Your task to perform on an android device: turn off location history Image 0: 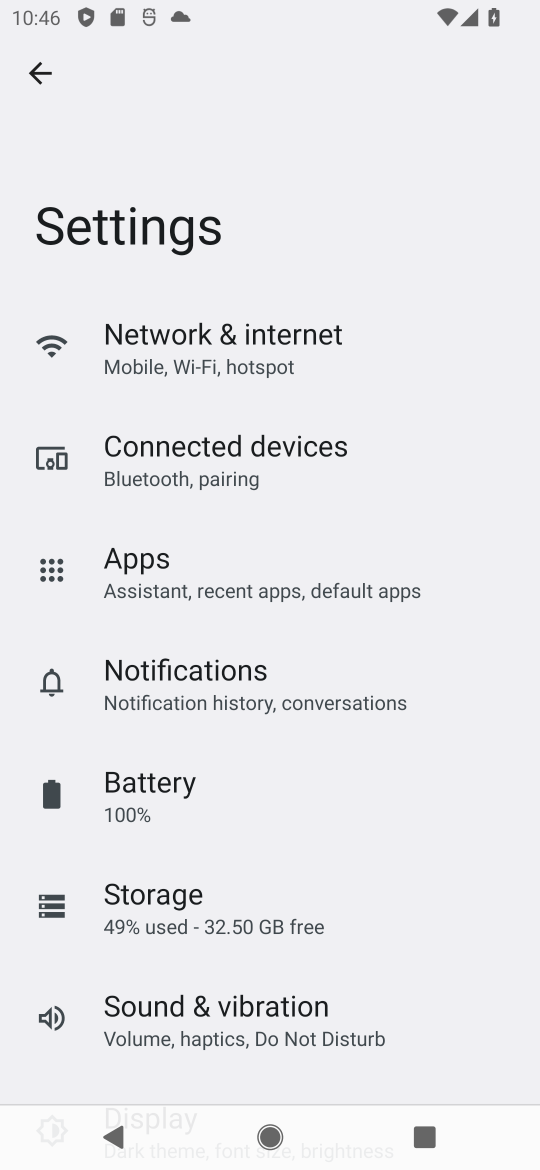
Step 0: press home button
Your task to perform on an android device: turn off location history Image 1: 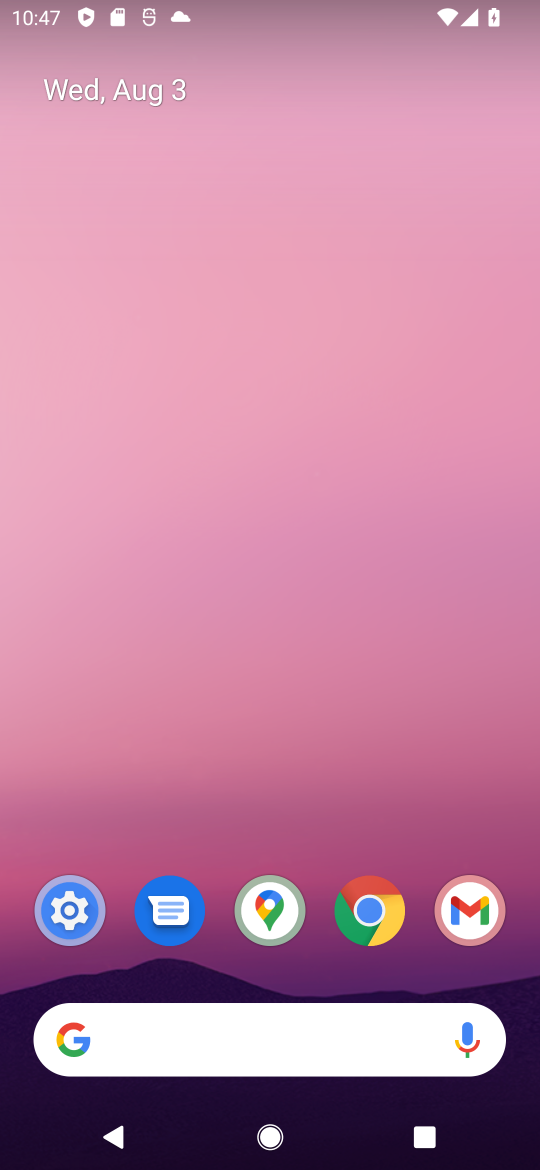
Step 1: drag from (319, 851) to (370, 100)
Your task to perform on an android device: turn off location history Image 2: 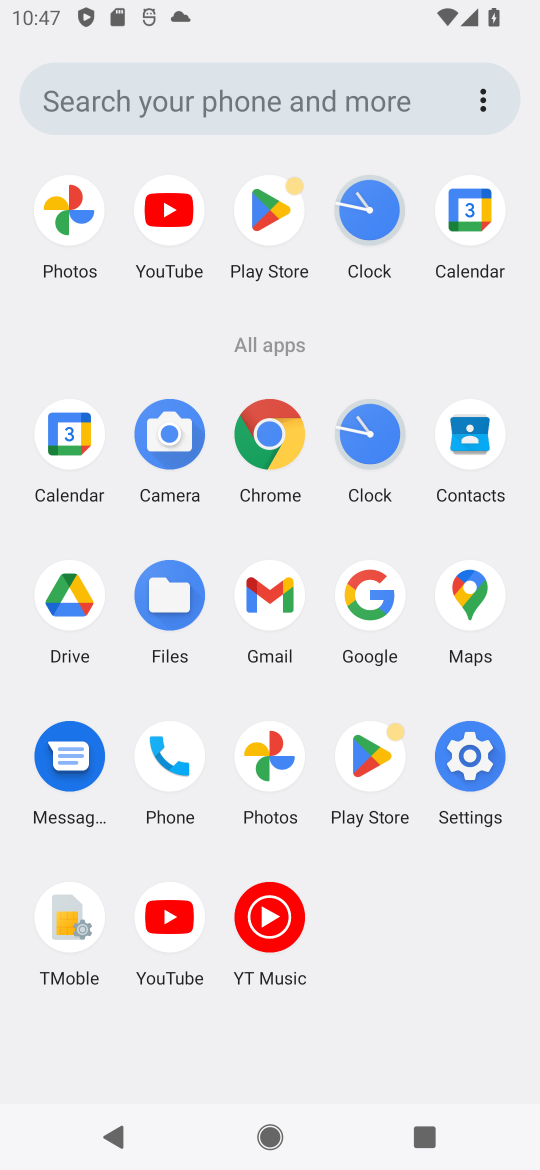
Step 2: click (470, 741)
Your task to perform on an android device: turn off location history Image 3: 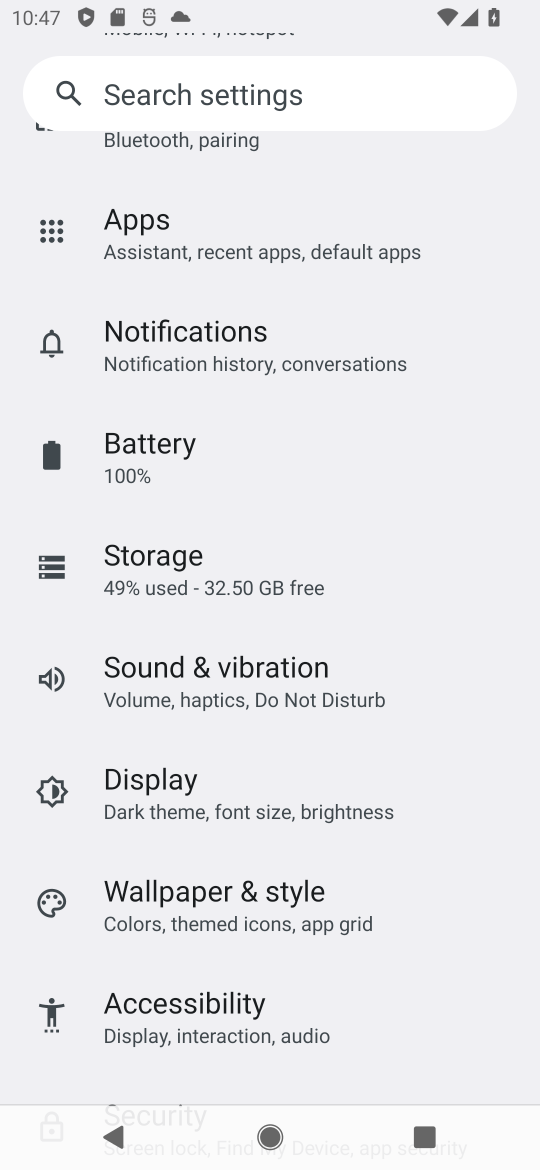
Step 3: drag from (232, 961) to (289, 395)
Your task to perform on an android device: turn off location history Image 4: 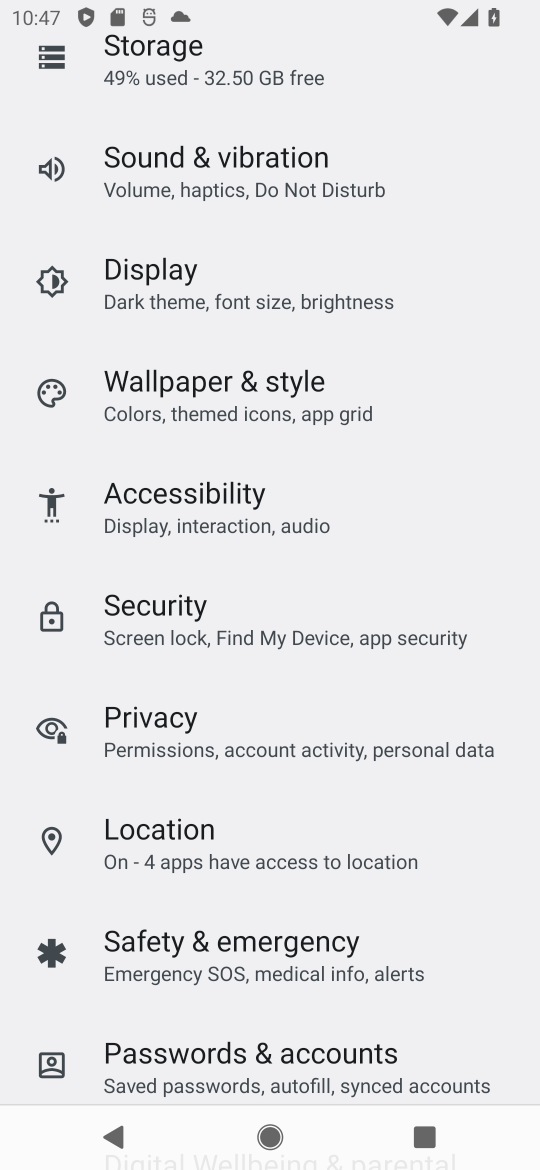
Step 4: click (229, 822)
Your task to perform on an android device: turn off location history Image 5: 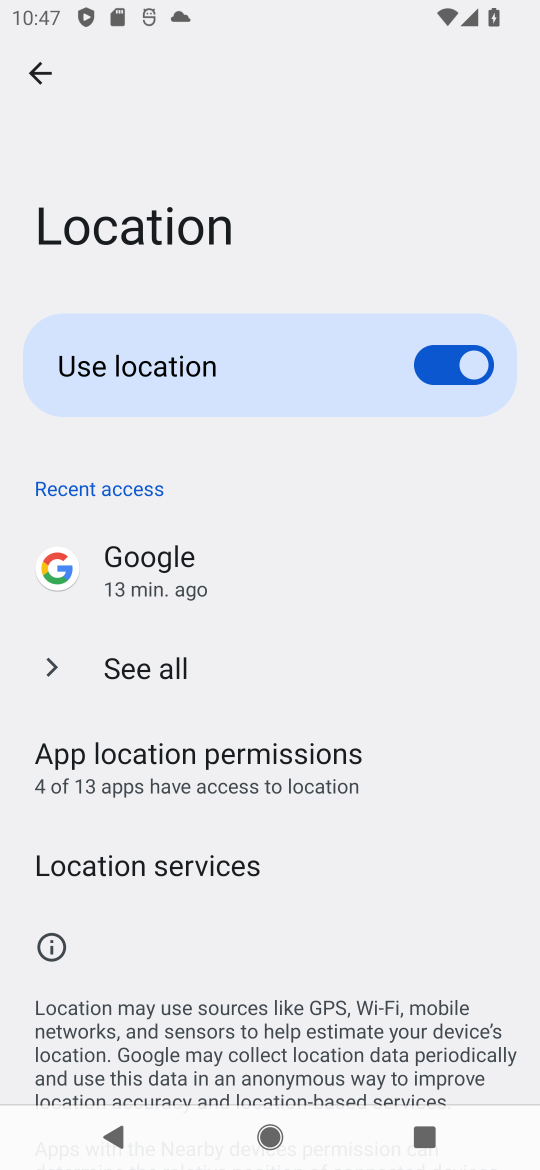
Step 5: click (237, 871)
Your task to perform on an android device: turn off location history Image 6: 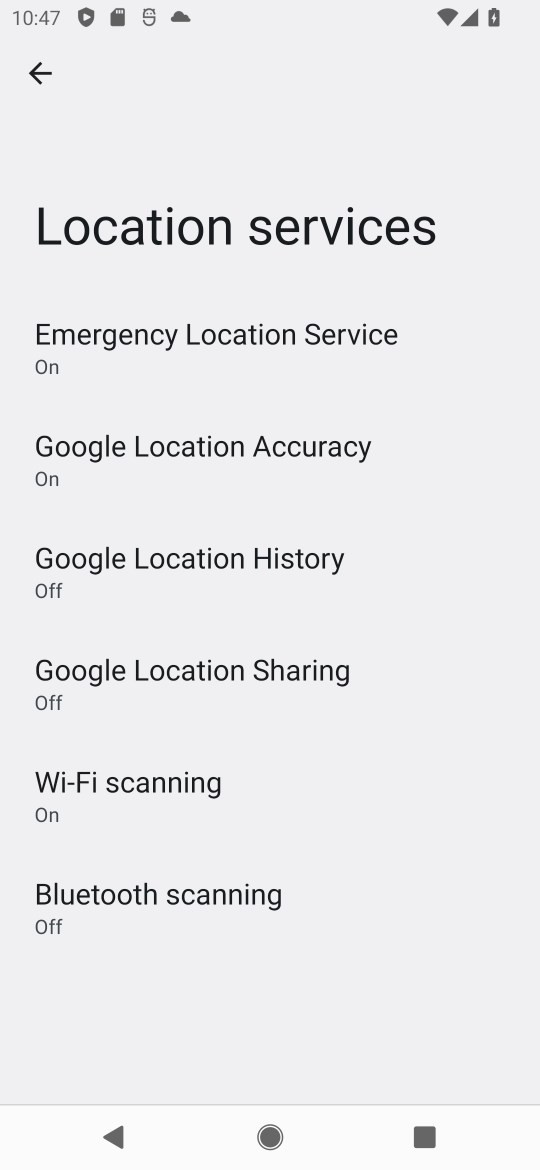
Step 6: click (270, 553)
Your task to perform on an android device: turn off location history Image 7: 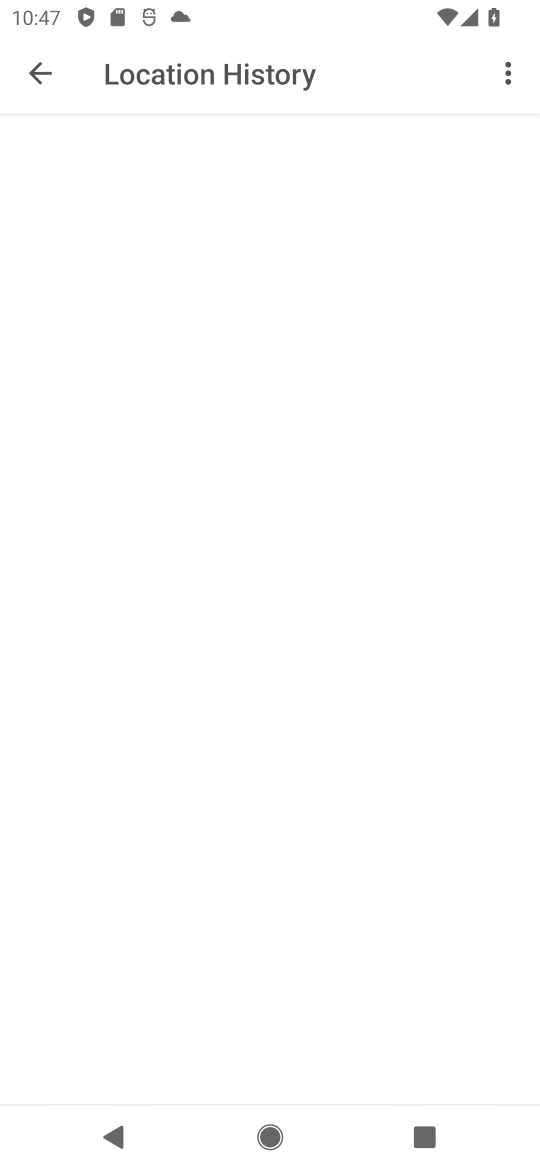
Step 7: task complete